Your task to perform on an android device: What's the weather going to be this weekend? Image 0: 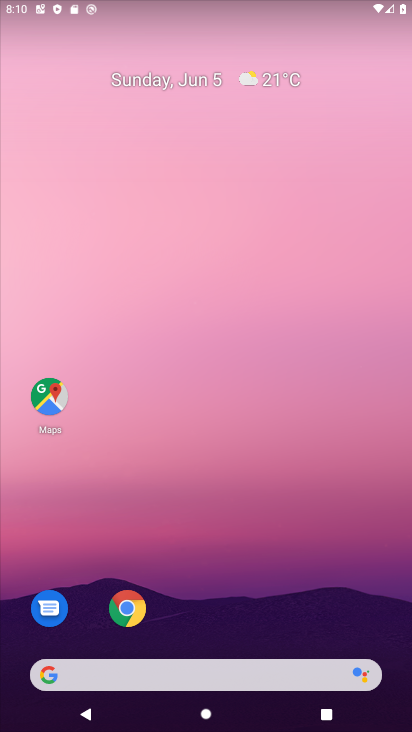
Step 0: drag from (343, 591) to (312, 192)
Your task to perform on an android device: What's the weather going to be this weekend? Image 1: 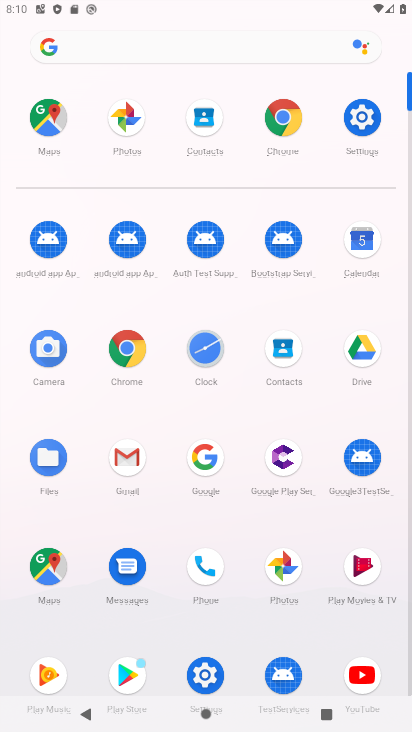
Step 1: click (291, 130)
Your task to perform on an android device: What's the weather going to be this weekend? Image 2: 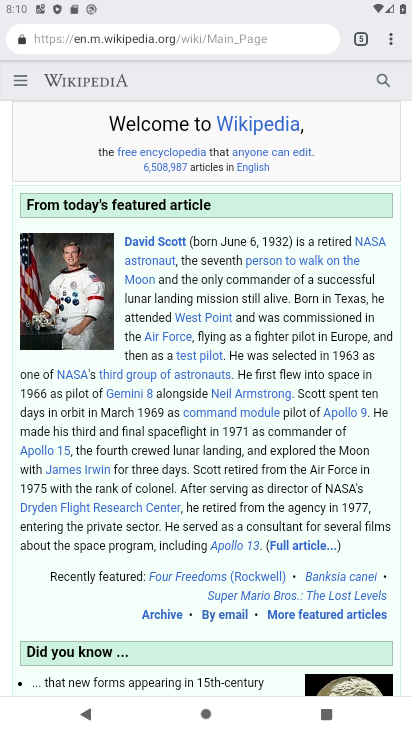
Step 2: click (360, 42)
Your task to perform on an android device: What's the weather going to be this weekend? Image 3: 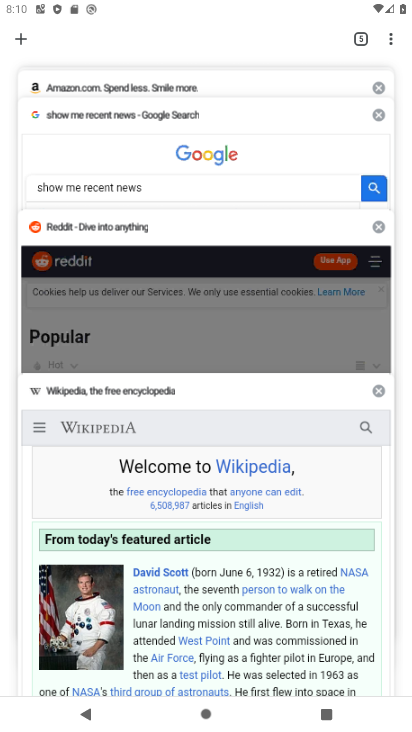
Step 3: click (19, 38)
Your task to perform on an android device: What's the weather going to be this weekend? Image 4: 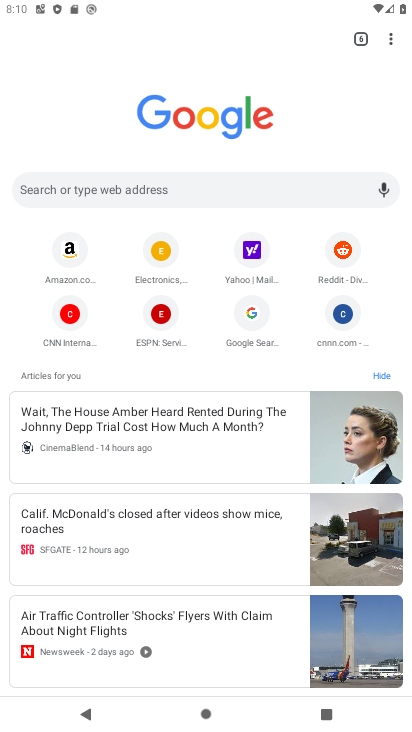
Step 4: click (102, 175)
Your task to perform on an android device: What's the weather going to be this weekend? Image 5: 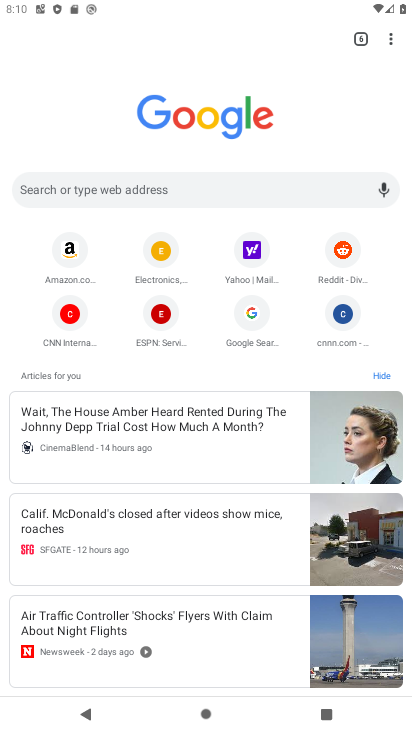
Step 5: click (100, 190)
Your task to perform on an android device: What's the weather going to be this weekend? Image 6: 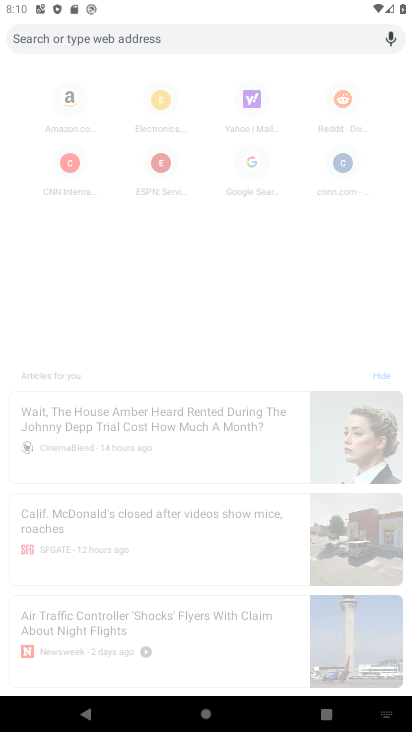
Step 6: type "what's the weather going to be this weekend "
Your task to perform on an android device: What's the weather going to be this weekend? Image 7: 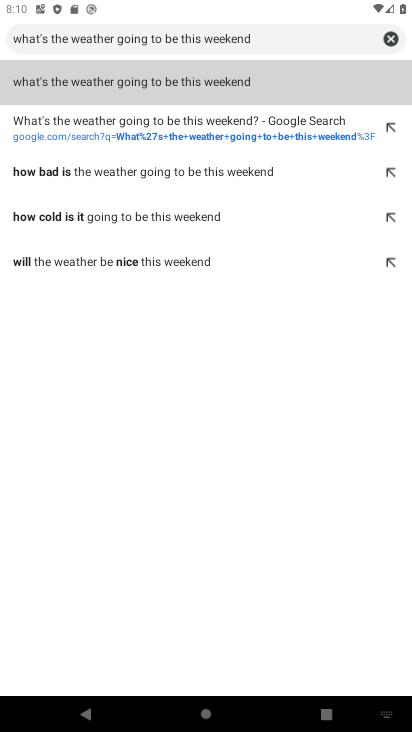
Step 7: click (177, 76)
Your task to perform on an android device: What's the weather going to be this weekend? Image 8: 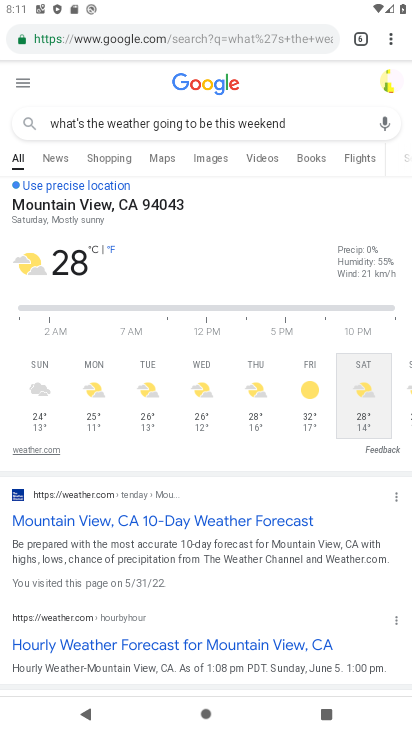
Step 8: task complete